Your task to perform on an android device: Open Youtube and go to "Your channel" Image 0: 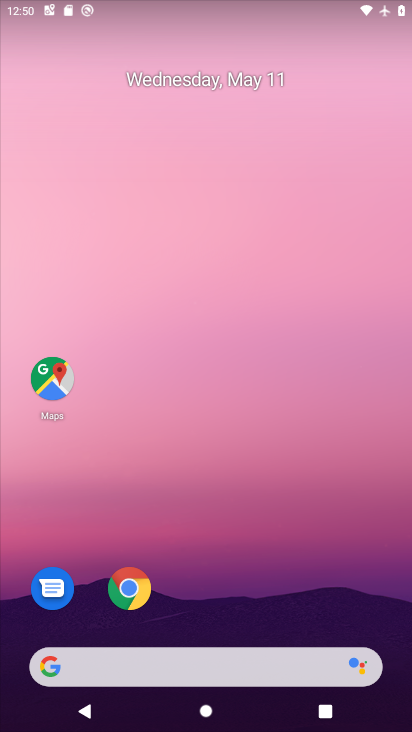
Step 0: drag from (184, 642) to (233, 128)
Your task to perform on an android device: Open Youtube and go to "Your channel" Image 1: 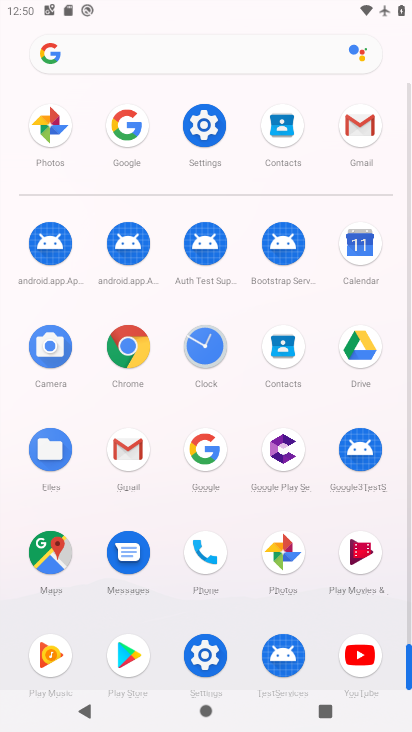
Step 1: click (349, 653)
Your task to perform on an android device: Open Youtube and go to "Your channel" Image 2: 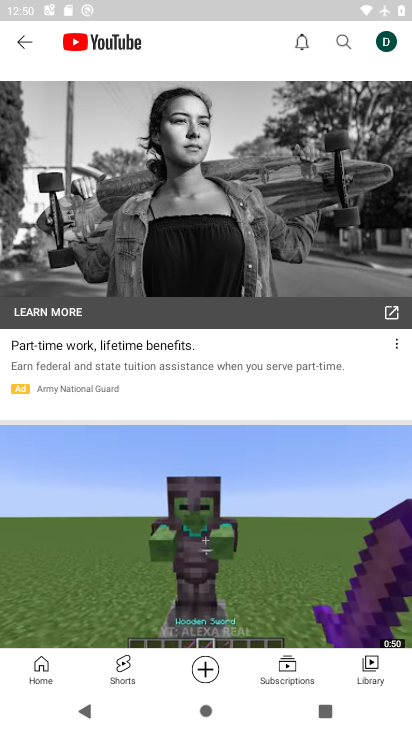
Step 2: click (390, 43)
Your task to perform on an android device: Open Youtube and go to "Your channel" Image 3: 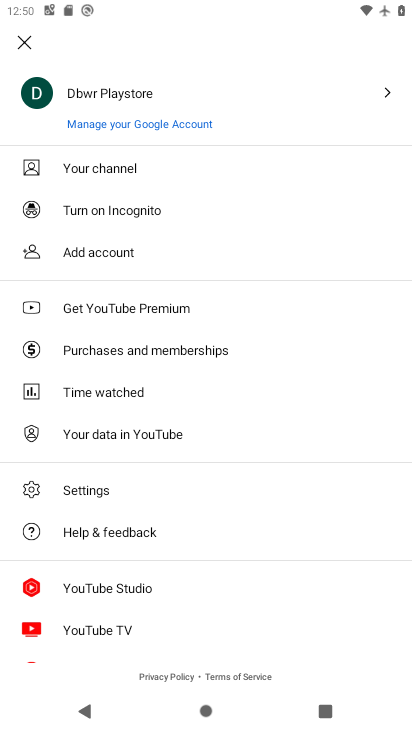
Step 3: click (57, 179)
Your task to perform on an android device: Open Youtube and go to "Your channel" Image 4: 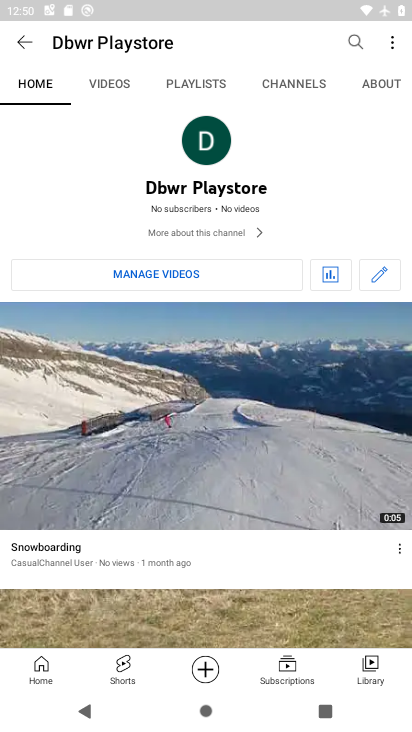
Step 4: task complete